Your task to perform on an android device: Open Google Chrome Image 0: 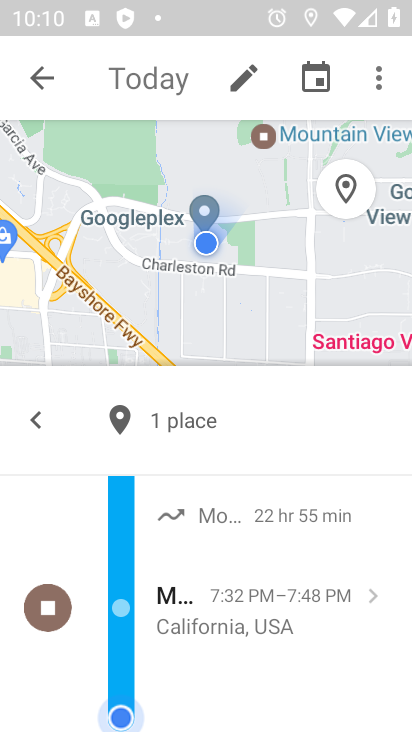
Step 0: press home button
Your task to perform on an android device: Open Google Chrome Image 1: 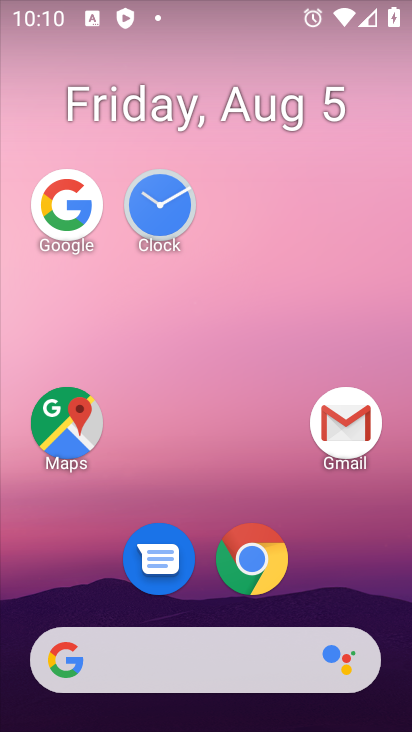
Step 1: click (258, 549)
Your task to perform on an android device: Open Google Chrome Image 2: 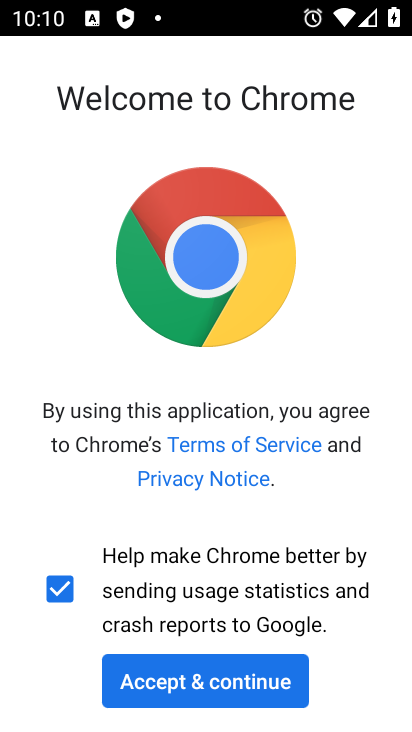
Step 2: task complete